Your task to perform on an android device: turn off location Image 0: 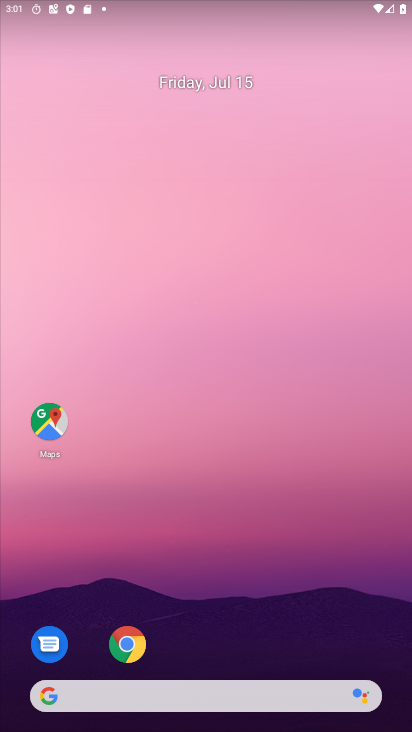
Step 0: drag from (199, 598) to (259, 119)
Your task to perform on an android device: turn off location Image 1: 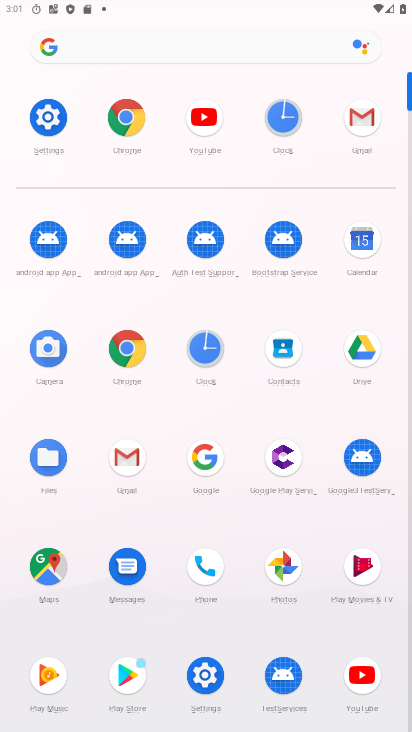
Step 1: click (45, 128)
Your task to perform on an android device: turn off location Image 2: 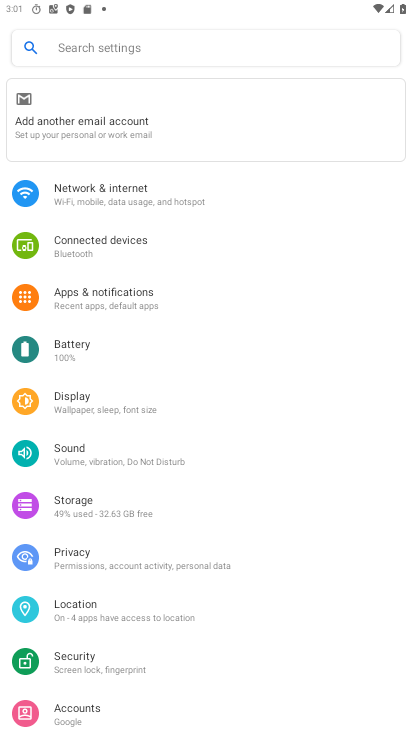
Step 2: click (105, 610)
Your task to perform on an android device: turn off location Image 3: 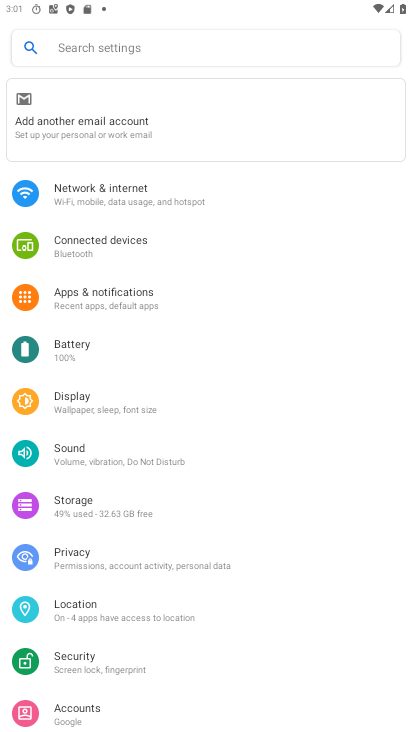
Step 3: click (123, 610)
Your task to perform on an android device: turn off location Image 4: 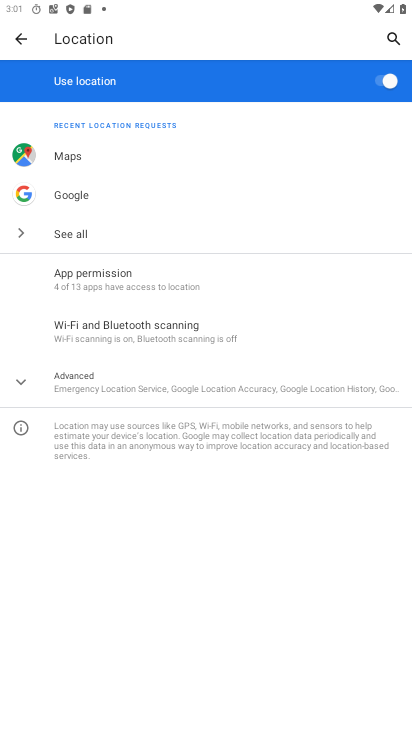
Step 4: click (382, 82)
Your task to perform on an android device: turn off location Image 5: 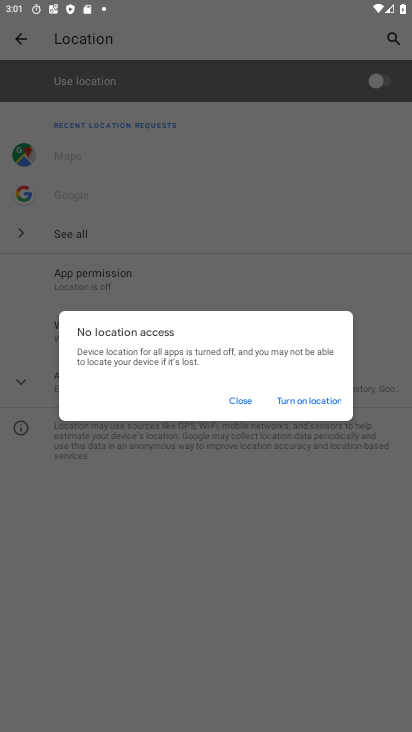
Step 5: click (232, 401)
Your task to perform on an android device: turn off location Image 6: 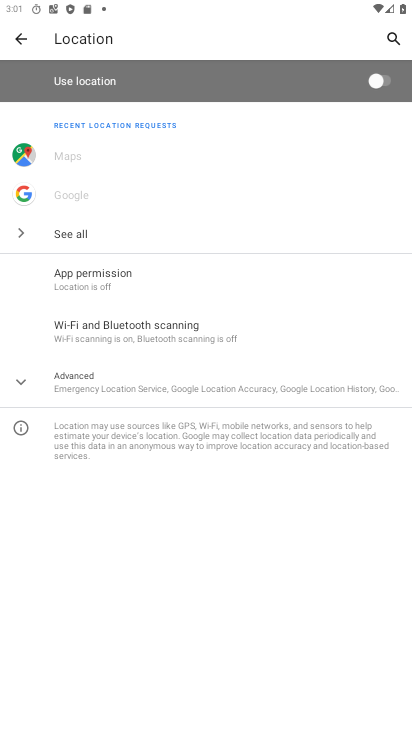
Step 6: task complete